Your task to perform on an android device: toggle data saver in the chrome app Image 0: 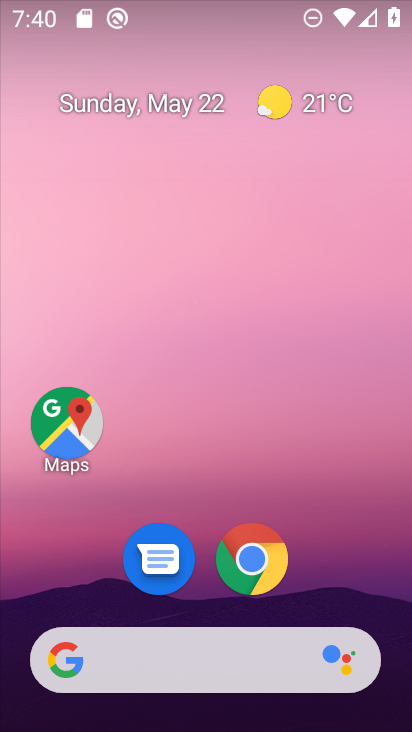
Step 0: drag from (308, 699) to (241, 296)
Your task to perform on an android device: toggle data saver in the chrome app Image 1: 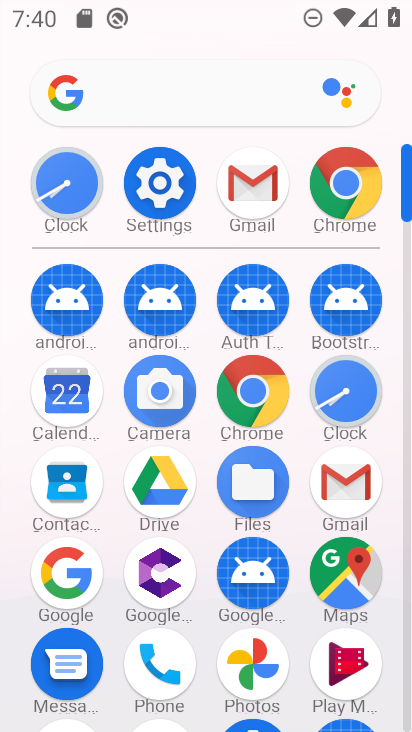
Step 1: click (359, 195)
Your task to perform on an android device: toggle data saver in the chrome app Image 2: 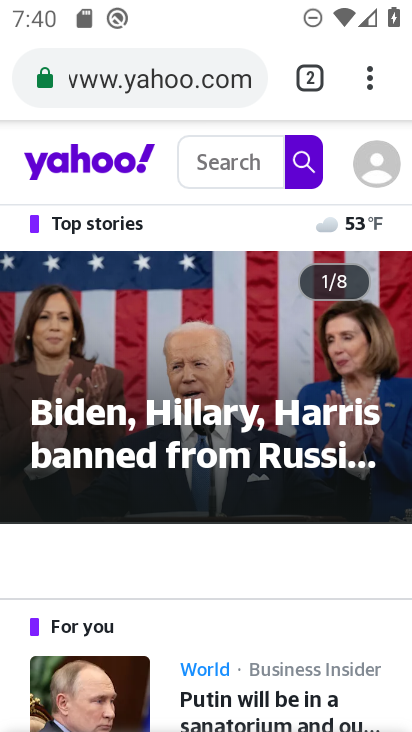
Step 2: click (361, 77)
Your task to perform on an android device: toggle data saver in the chrome app Image 3: 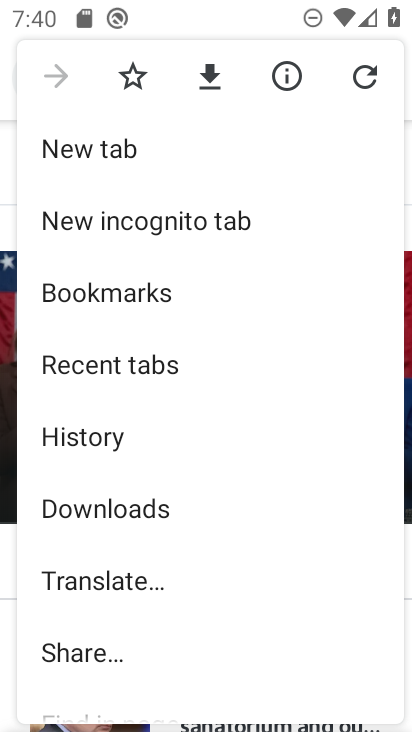
Step 3: drag from (150, 450) to (131, 148)
Your task to perform on an android device: toggle data saver in the chrome app Image 4: 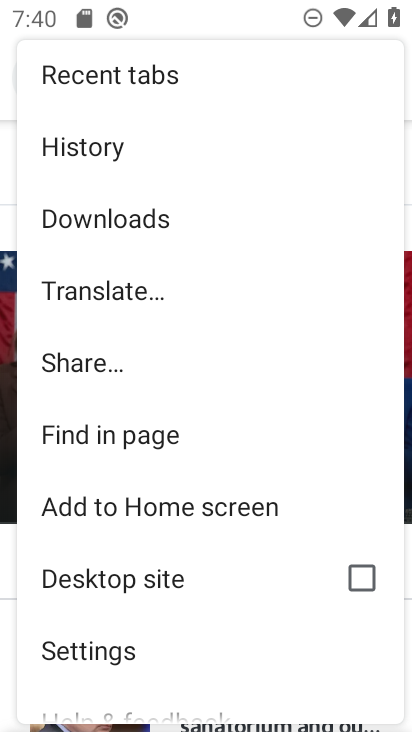
Step 4: click (167, 642)
Your task to perform on an android device: toggle data saver in the chrome app Image 5: 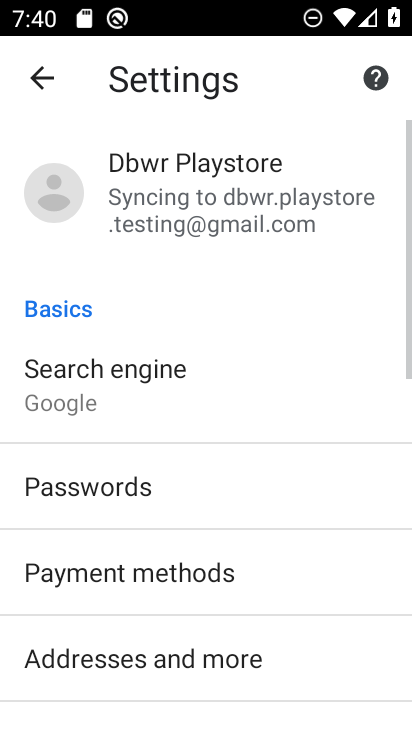
Step 5: drag from (193, 619) to (197, 377)
Your task to perform on an android device: toggle data saver in the chrome app Image 6: 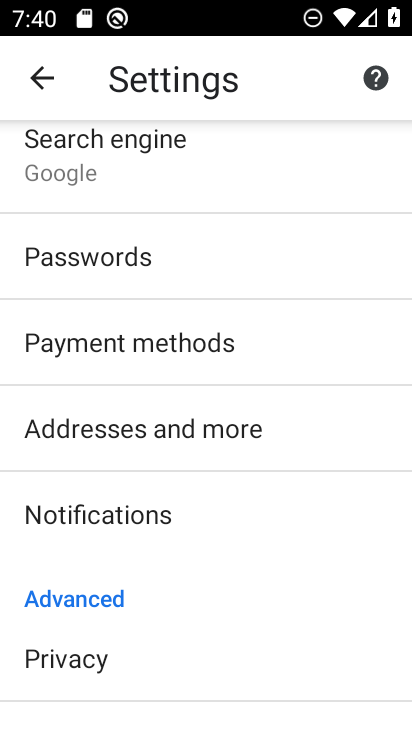
Step 6: drag from (192, 584) to (239, 259)
Your task to perform on an android device: toggle data saver in the chrome app Image 7: 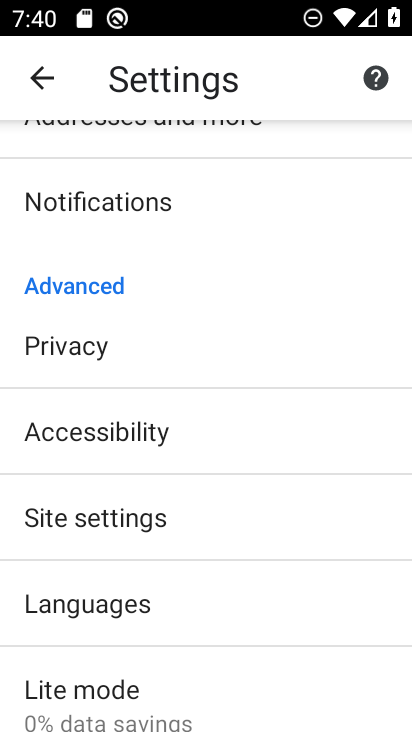
Step 7: click (140, 690)
Your task to perform on an android device: toggle data saver in the chrome app Image 8: 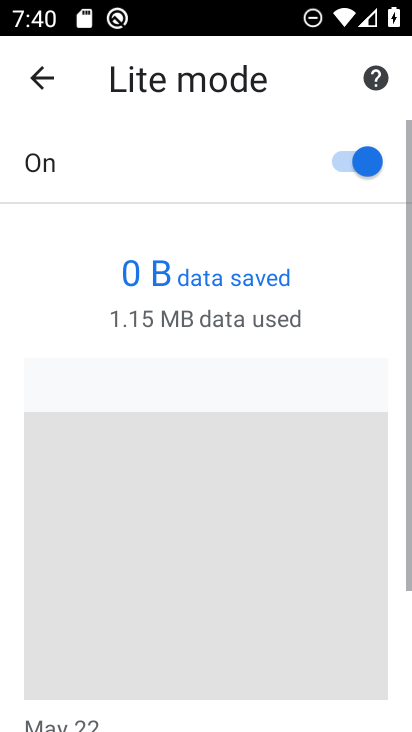
Step 8: task complete